Your task to perform on an android device: toggle improve location accuracy Image 0: 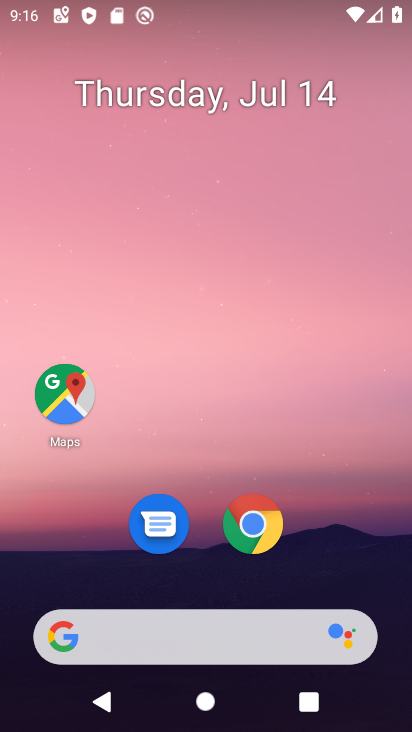
Step 0: drag from (204, 468) to (268, 25)
Your task to perform on an android device: toggle improve location accuracy Image 1: 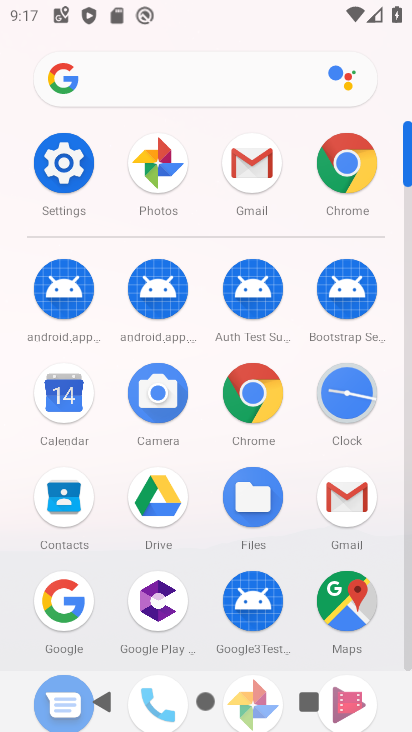
Step 1: click (70, 157)
Your task to perform on an android device: toggle improve location accuracy Image 2: 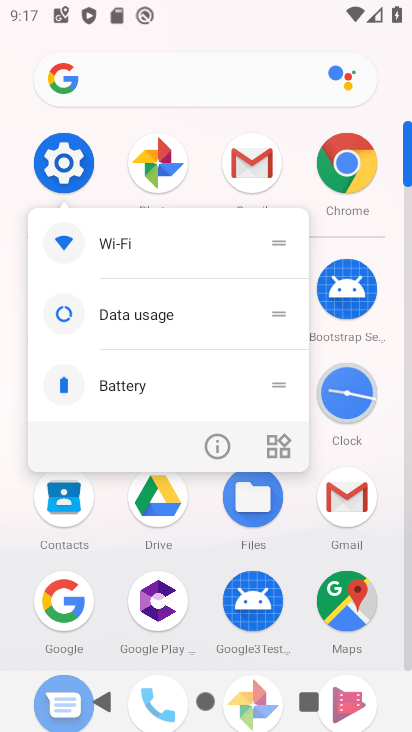
Step 2: click (78, 169)
Your task to perform on an android device: toggle improve location accuracy Image 3: 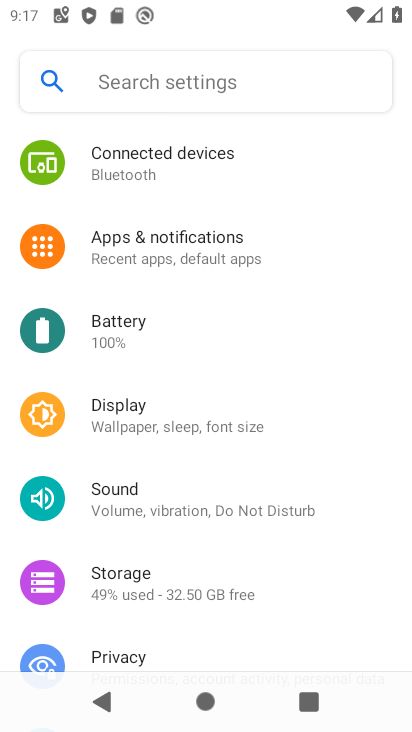
Step 3: drag from (237, 524) to (190, 71)
Your task to perform on an android device: toggle improve location accuracy Image 4: 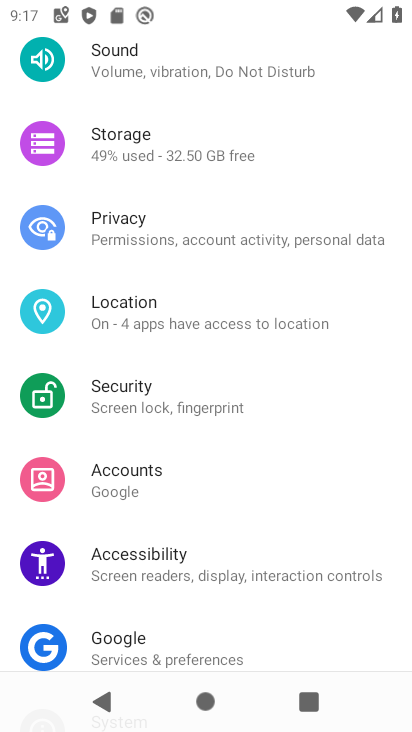
Step 4: click (217, 313)
Your task to perform on an android device: toggle improve location accuracy Image 5: 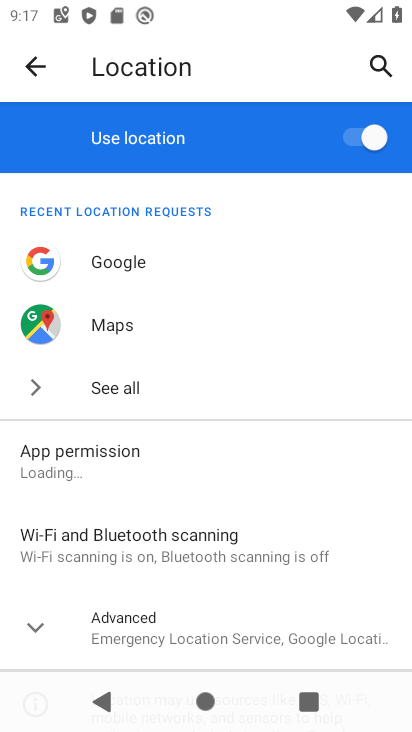
Step 5: click (36, 626)
Your task to perform on an android device: toggle improve location accuracy Image 6: 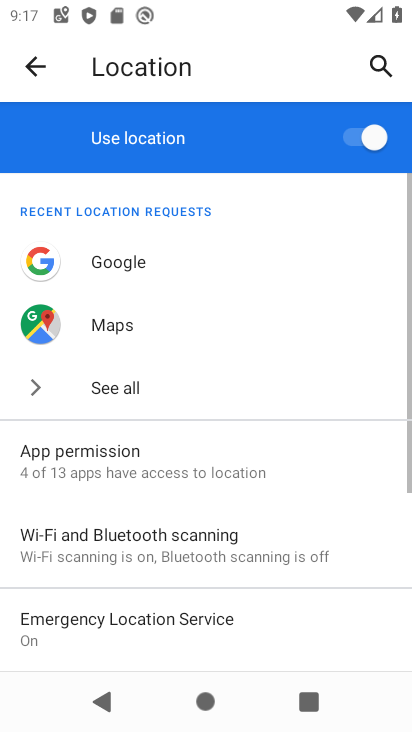
Step 6: drag from (261, 488) to (281, 182)
Your task to perform on an android device: toggle improve location accuracy Image 7: 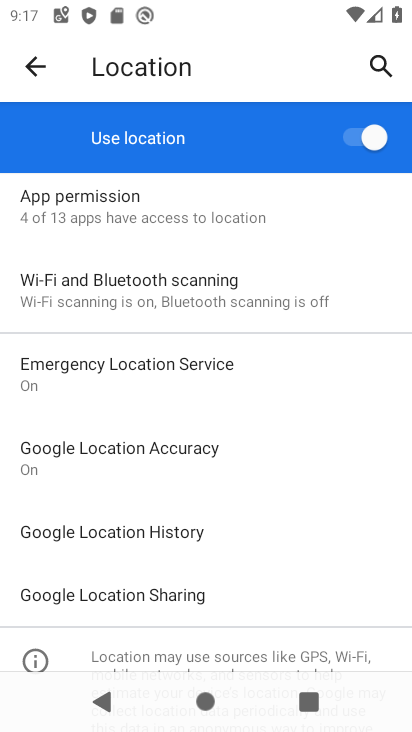
Step 7: click (173, 456)
Your task to perform on an android device: toggle improve location accuracy Image 8: 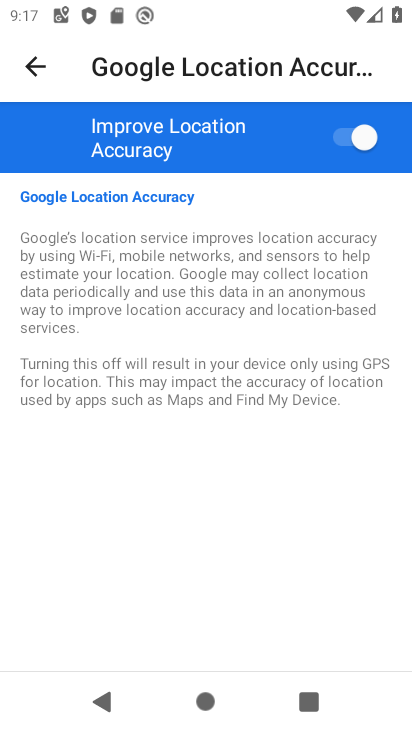
Step 8: click (355, 134)
Your task to perform on an android device: toggle improve location accuracy Image 9: 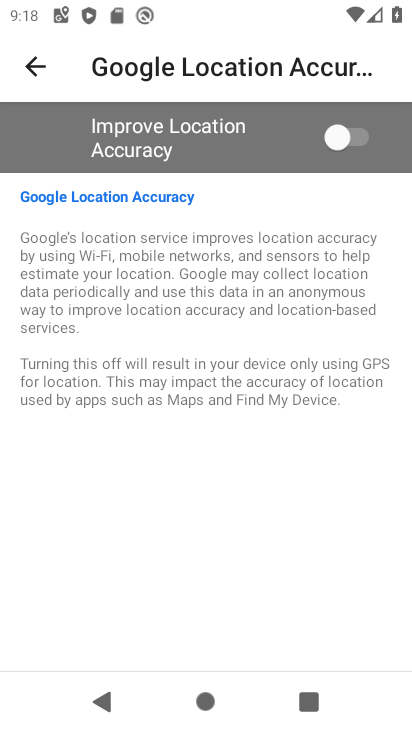
Step 9: task complete